Your task to perform on an android device: Open CNN.com Image 0: 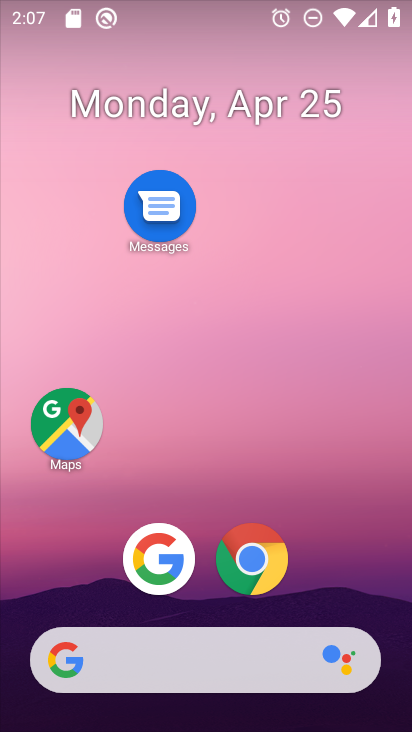
Step 0: drag from (337, 569) to (367, 74)
Your task to perform on an android device: Open CNN.com Image 1: 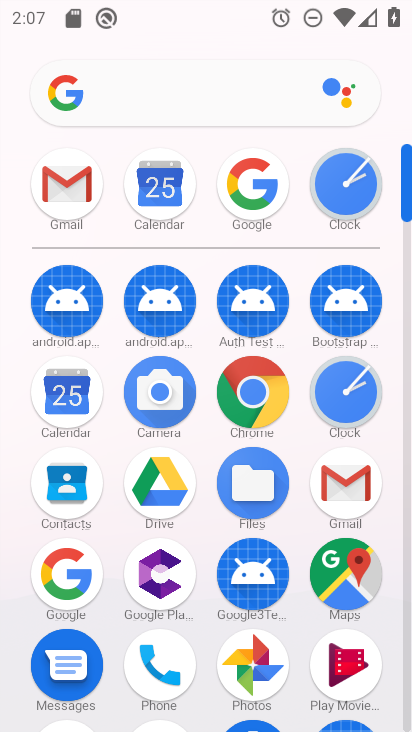
Step 1: click (257, 188)
Your task to perform on an android device: Open CNN.com Image 2: 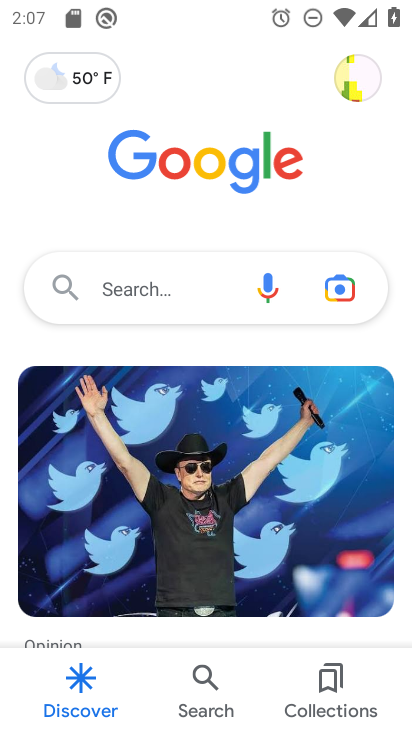
Step 2: click (159, 292)
Your task to perform on an android device: Open CNN.com Image 3: 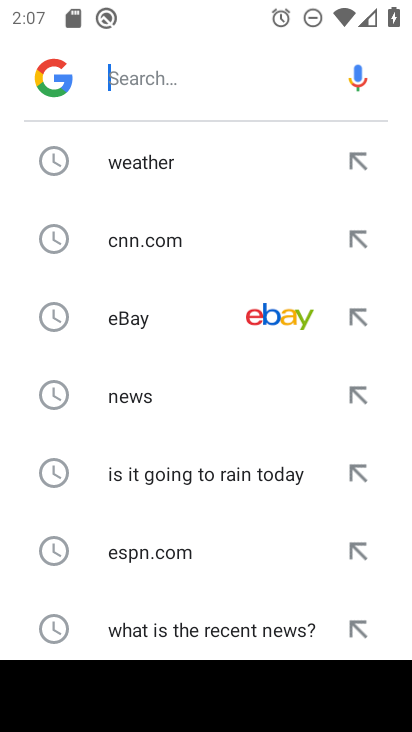
Step 3: click (146, 244)
Your task to perform on an android device: Open CNN.com Image 4: 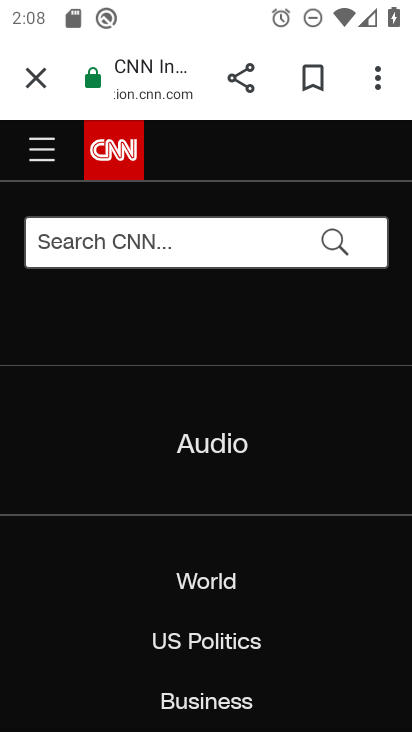
Step 4: task complete